Your task to perform on an android device: toggle translation in the chrome app Image 0: 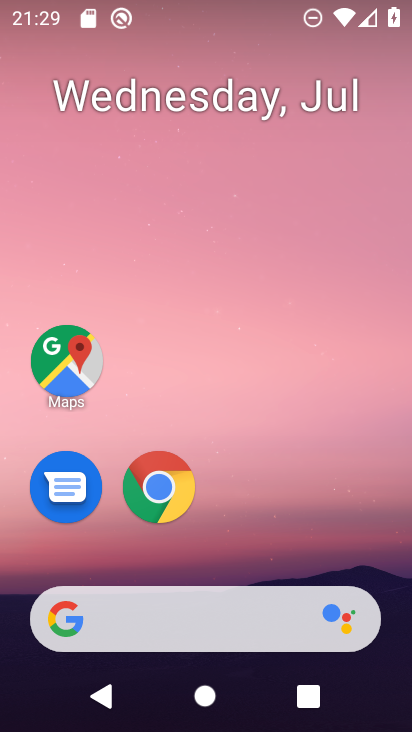
Step 0: drag from (373, 531) to (378, 72)
Your task to perform on an android device: toggle translation in the chrome app Image 1: 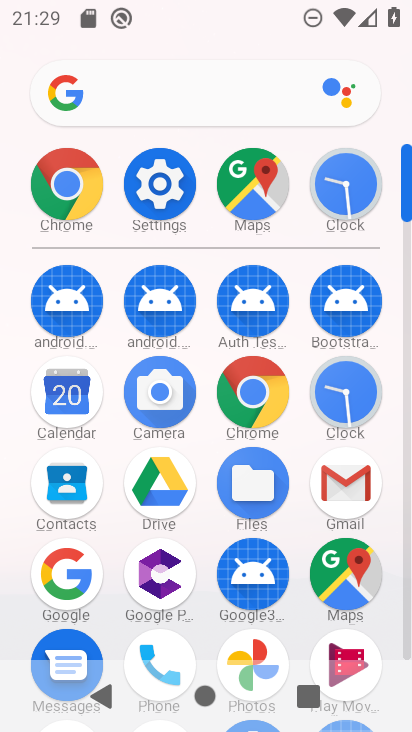
Step 1: click (267, 389)
Your task to perform on an android device: toggle translation in the chrome app Image 2: 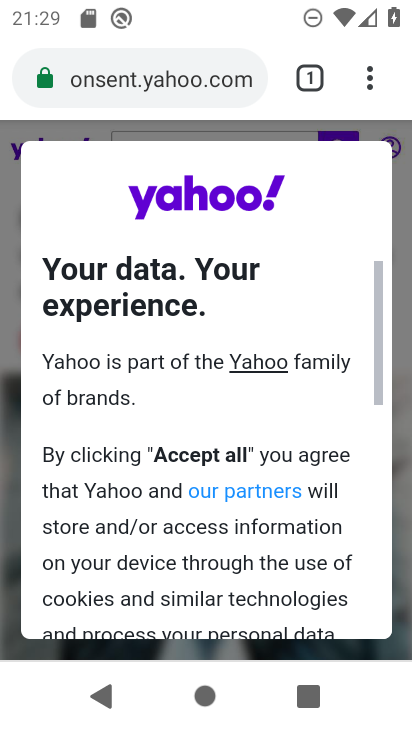
Step 2: click (368, 89)
Your task to perform on an android device: toggle translation in the chrome app Image 3: 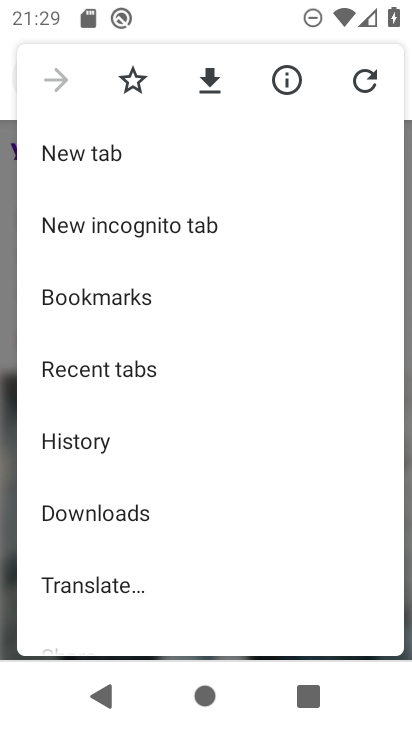
Step 3: drag from (301, 414) to (299, 308)
Your task to perform on an android device: toggle translation in the chrome app Image 4: 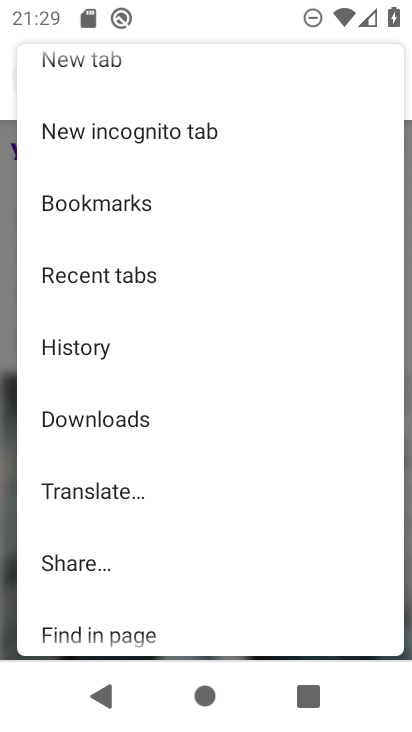
Step 4: drag from (273, 477) to (285, 364)
Your task to perform on an android device: toggle translation in the chrome app Image 5: 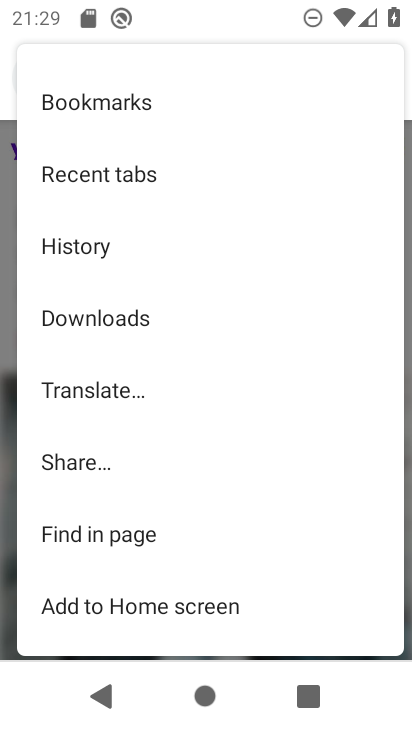
Step 5: drag from (279, 482) to (297, 352)
Your task to perform on an android device: toggle translation in the chrome app Image 6: 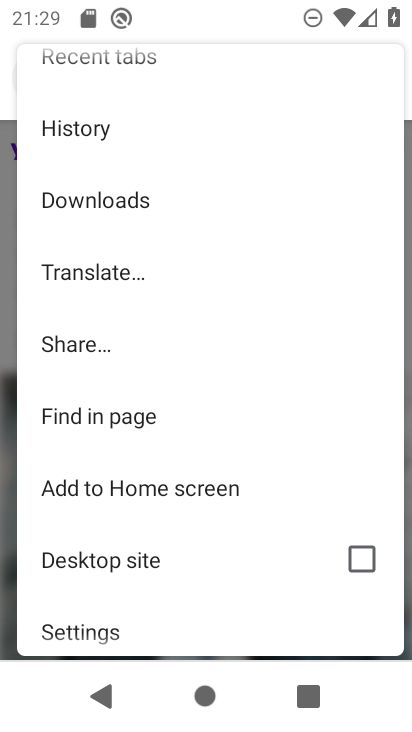
Step 6: drag from (277, 482) to (286, 337)
Your task to perform on an android device: toggle translation in the chrome app Image 7: 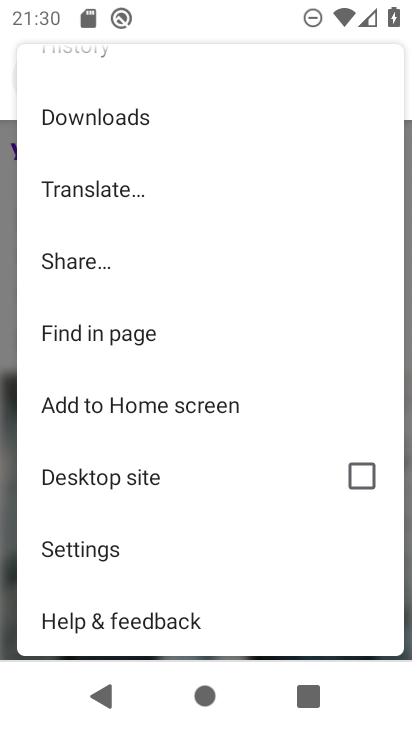
Step 7: click (119, 551)
Your task to perform on an android device: toggle translation in the chrome app Image 8: 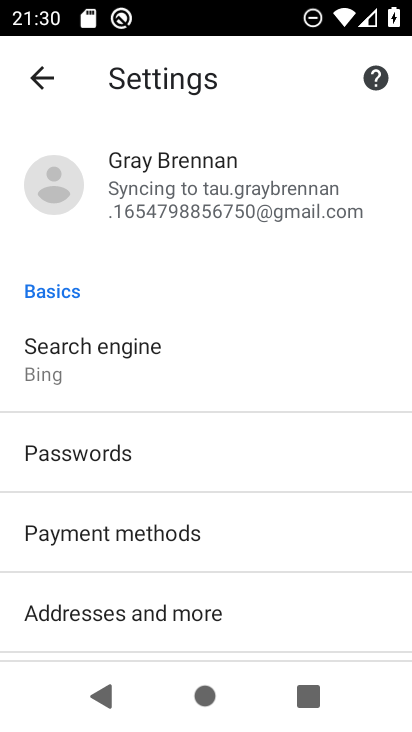
Step 8: drag from (364, 538) to (359, 472)
Your task to perform on an android device: toggle translation in the chrome app Image 9: 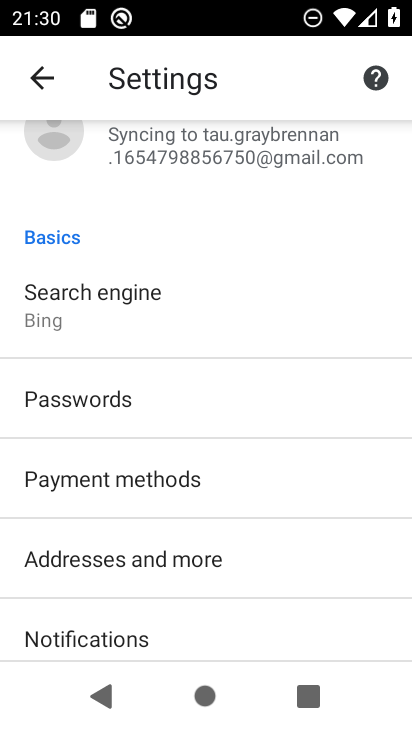
Step 9: drag from (352, 552) to (354, 466)
Your task to perform on an android device: toggle translation in the chrome app Image 10: 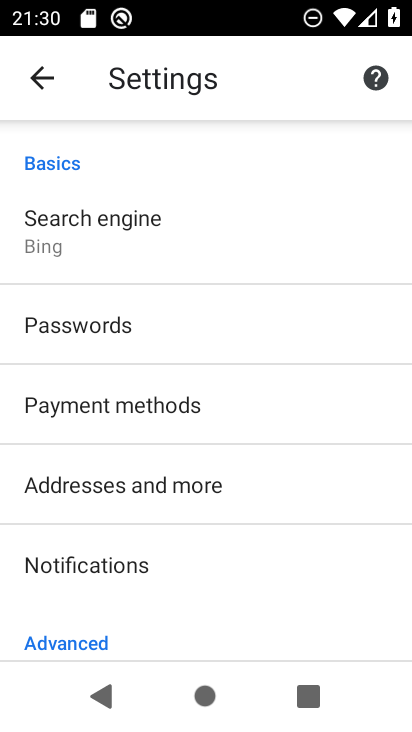
Step 10: drag from (356, 529) to (357, 463)
Your task to perform on an android device: toggle translation in the chrome app Image 11: 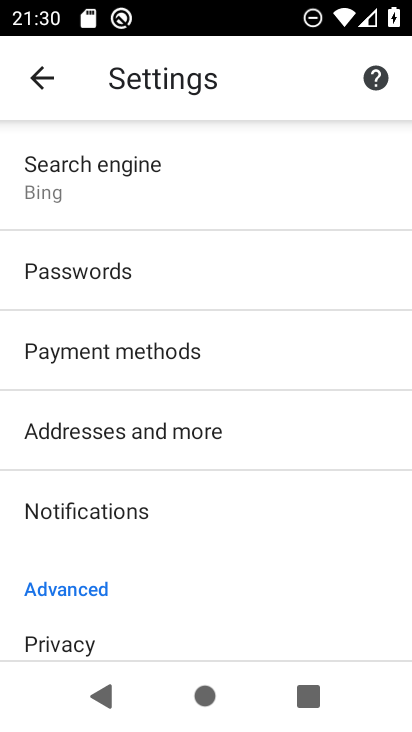
Step 11: drag from (351, 557) to (351, 462)
Your task to perform on an android device: toggle translation in the chrome app Image 12: 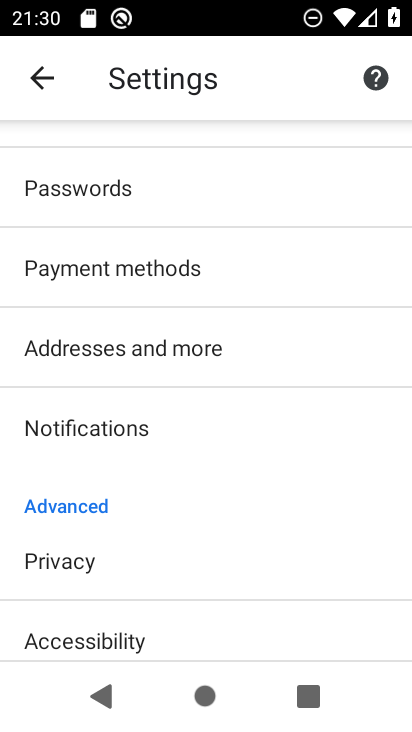
Step 12: drag from (328, 562) to (332, 484)
Your task to perform on an android device: toggle translation in the chrome app Image 13: 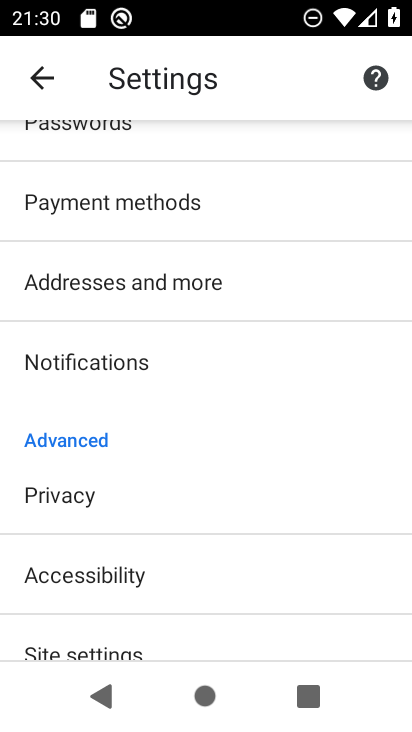
Step 13: drag from (323, 561) to (320, 466)
Your task to perform on an android device: toggle translation in the chrome app Image 14: 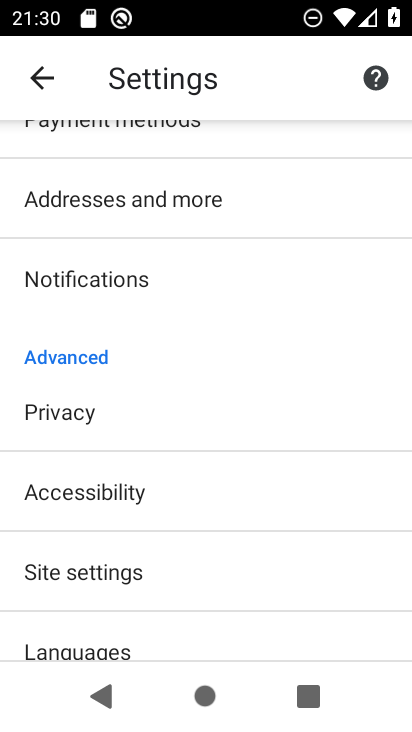
Step 14: drag from (313, 553) to (314, 458)
Your task to perform on an android device: toggle translation in the chrome app Image 15: 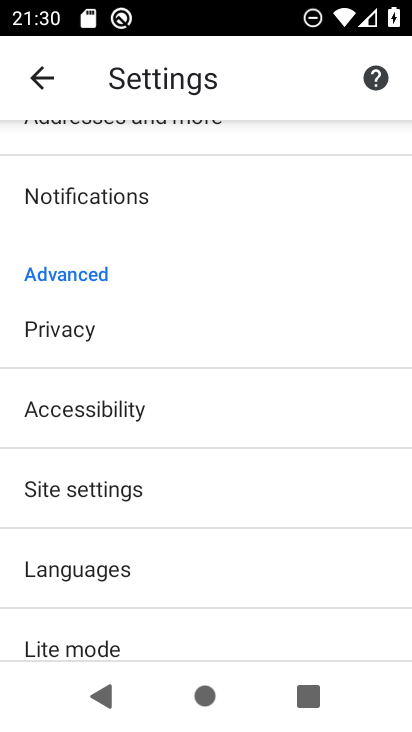
Step 15: drag from (312, 561) to (313, 435)
Your task to perform on an android device: toggle translation in the chrome app Image 16: 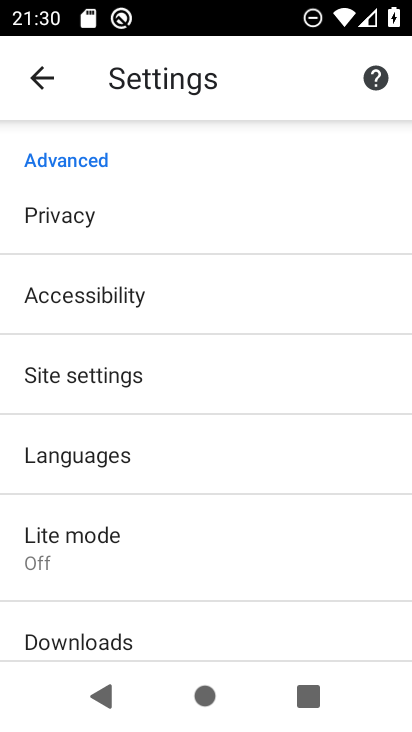
Step 16: click (309, 443)
Your task to perform on an android device: toggle translation in the chrome app Image 17: 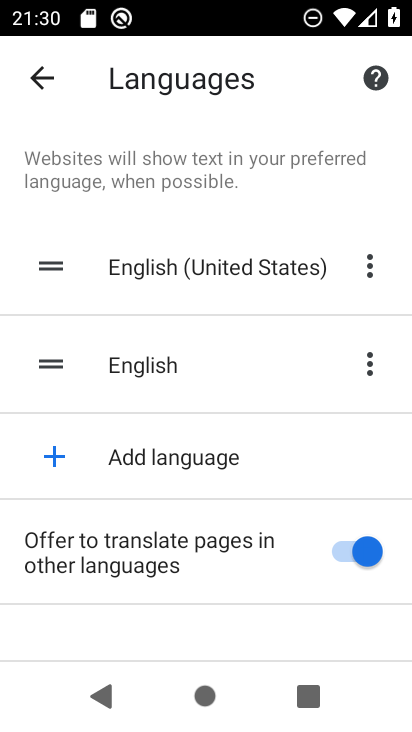
Step 17: click (350, 554)
Your task to perform on an android device: toggle translation in the chrome app Image 18: 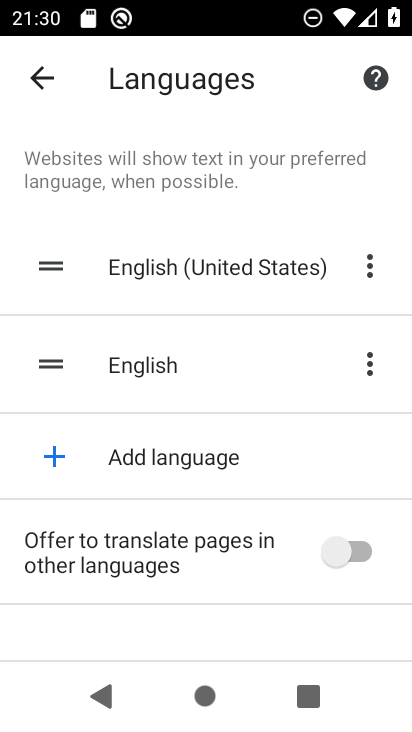
Step 18: task complete